Your task to perform on an android device: turn pop-ups on in chrome Image 0: 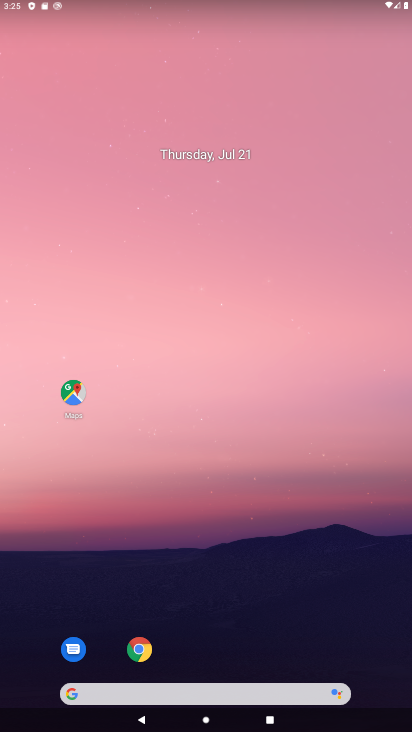
Step 0: click (140, 652)
Your task to perform on an android device: turn pop-ups on in chrome Image 1: 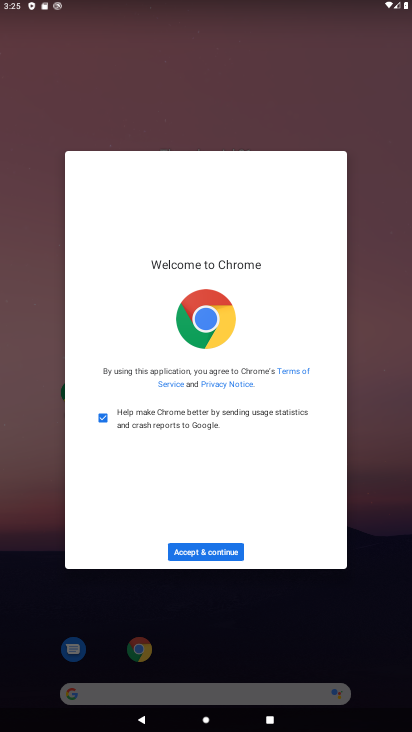
Step 1: click (216, 554)
Your task to perform on an android device: turn pop-ups on in chrome Image 2: 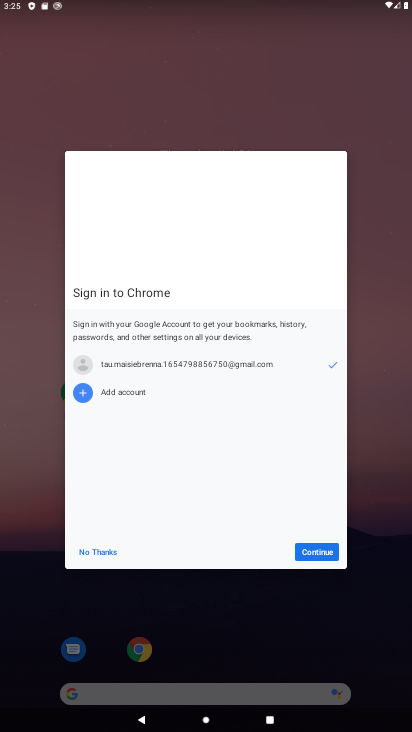
Step 2: click (313, 550)
Your task to perform on an android device: turn pop-ups on in chrome Image 3: 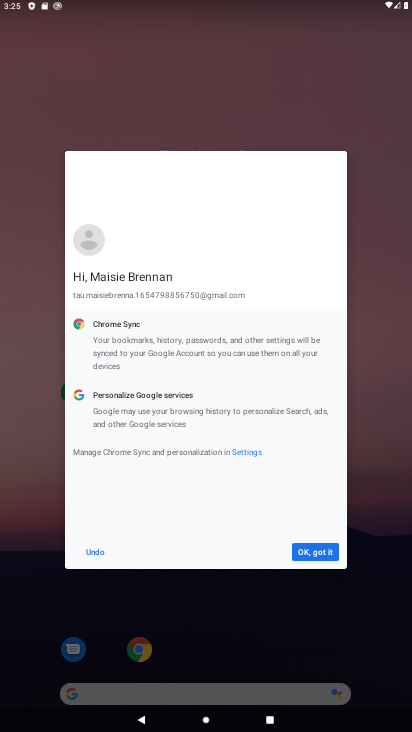
Step 3: click (313, 550)
Your task to perform on an android device: turn pop-ups on in chrome Image 4: 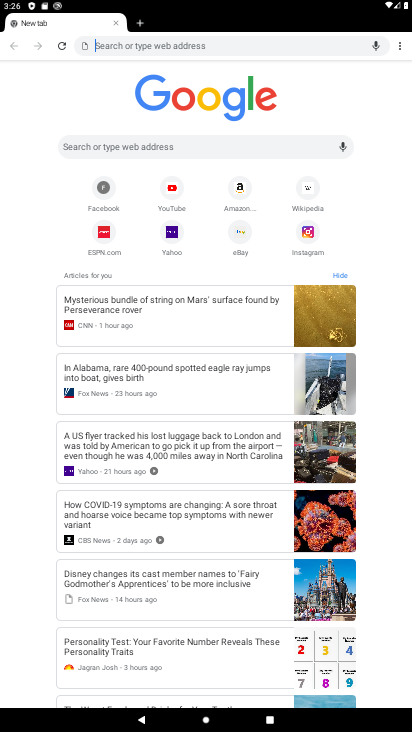
Step 4: click (400, 44)
Your task to perform on an android device: turn pop-ups on in chrome Image 5: 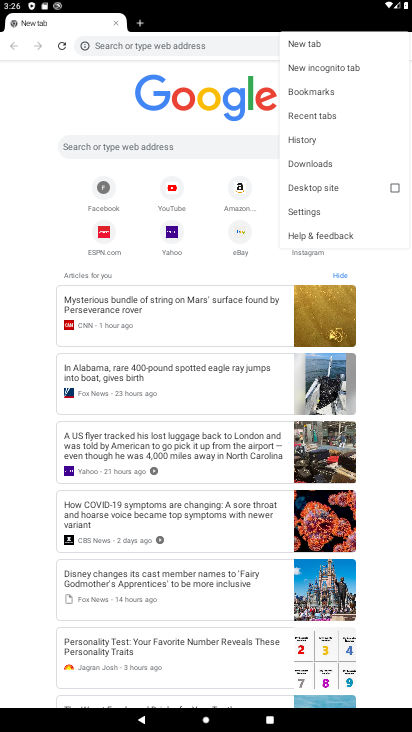
Step 5: click (316, 209)
Your task to perform on an android device: turn pop-ups on in chrome Image 6: 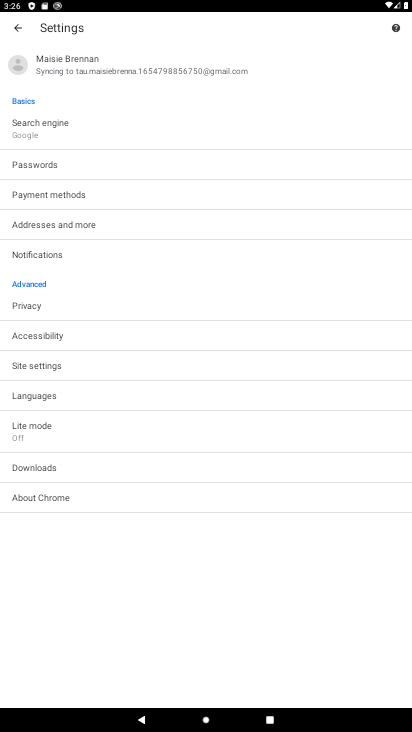
Step 6: click (35, 367)
Your task to perform on an android device: turn pop-ups on in chrome Image 7: 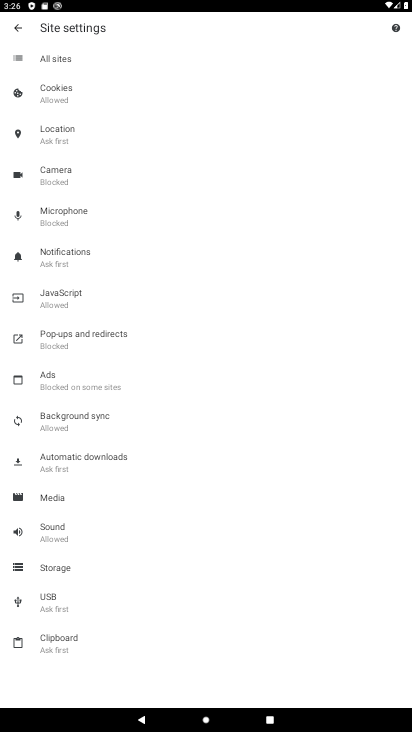
Step 7: click (57, 345)
Your task to perform on an android device: turn pop-ups on in chrome Image 8: 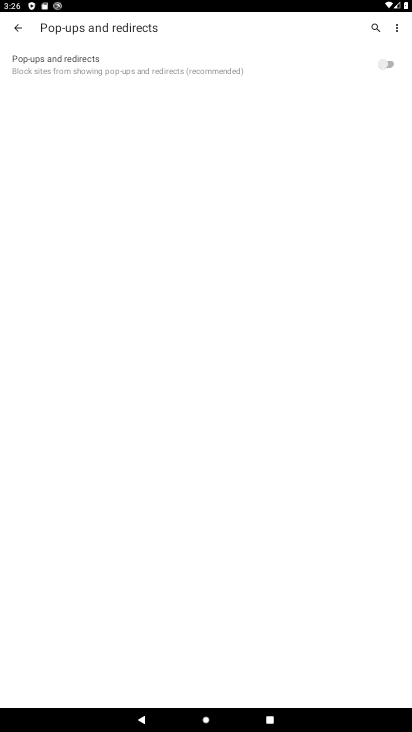
Step 8: click (387, 62)
Your task to perform on an android device: turn pop-ups on in chrome Image 9: 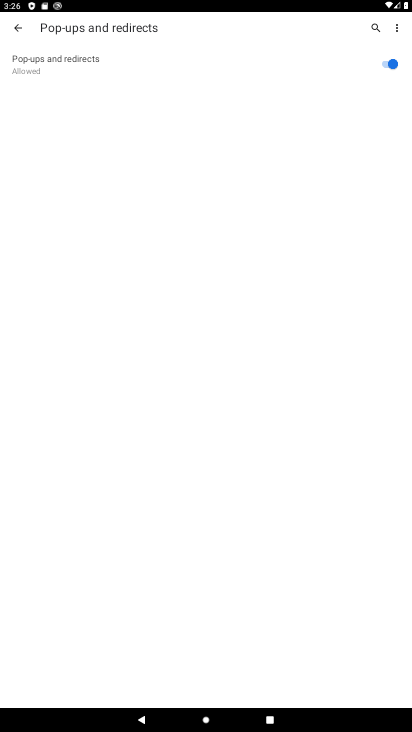
Step 9: task complete